Your task to perform on an android device: add a label to a message in the gmail app Image 0: 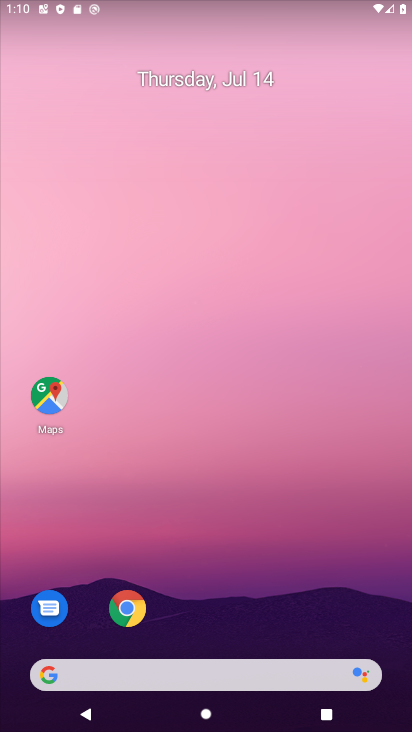
Step 0: drag from (385, 640) to (342, 248)
Your task to perform on an android device: add a label to a message in the gmail app Image 1: 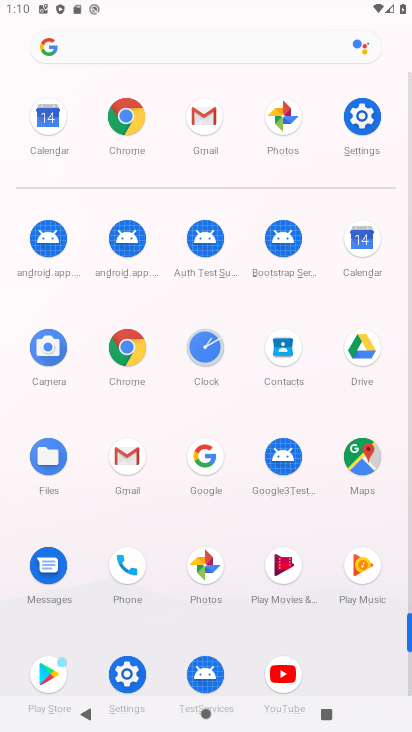
Step 1: click (124, 455)
Your task to perform on an android device: add a label to a message in the gmail app Image 2: 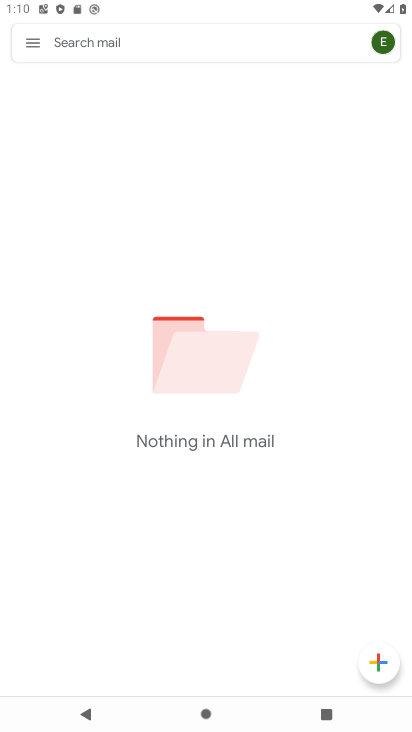
Step 2: click (29, 38)
Your task to perform on an android device: add a label to a message in the gmail app Image 3: 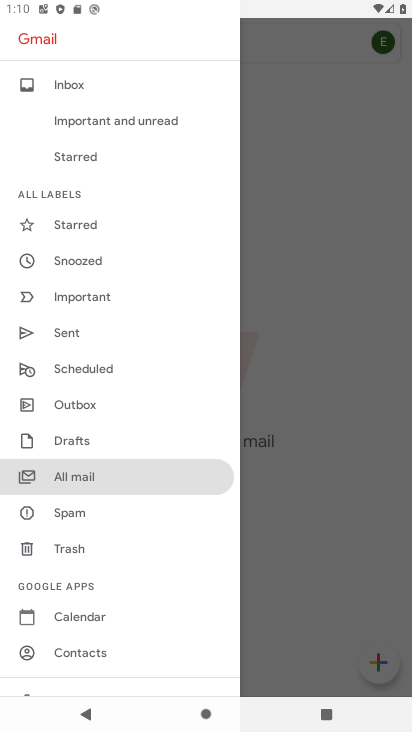
Step 3: click (96, 481)
Your task to perform on an android device: add a label to a message in the gmail app Image 4: 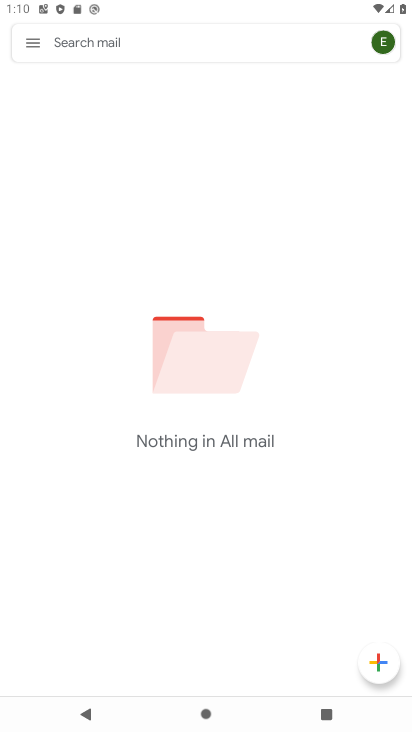
Step 4: task complete